Your task to perform on an android device: install app "YouTube Kids" Image 0: 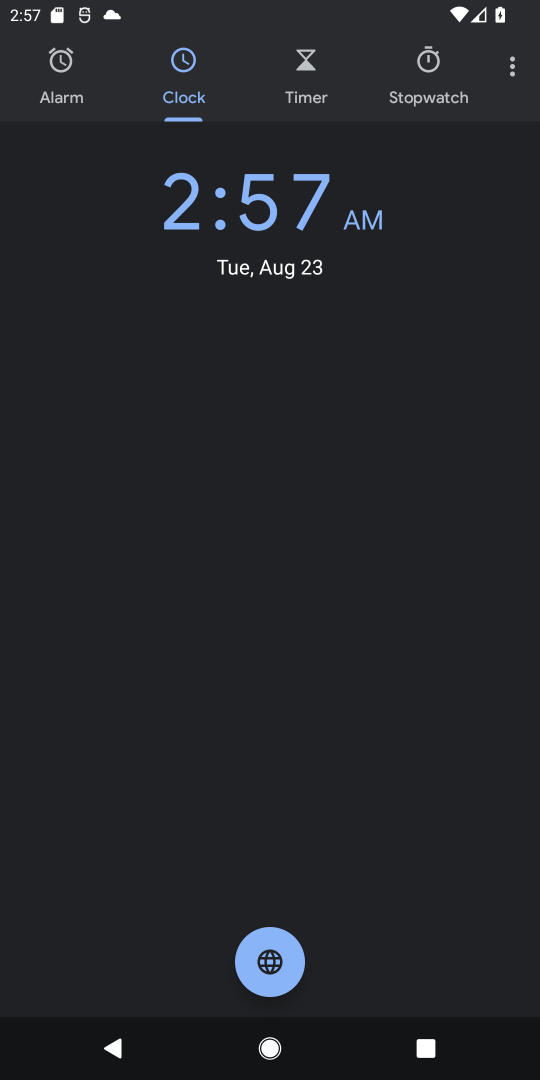
Step 0: press back button
Your task to perform on an android device: install app "YouTube Kids" Image 1: 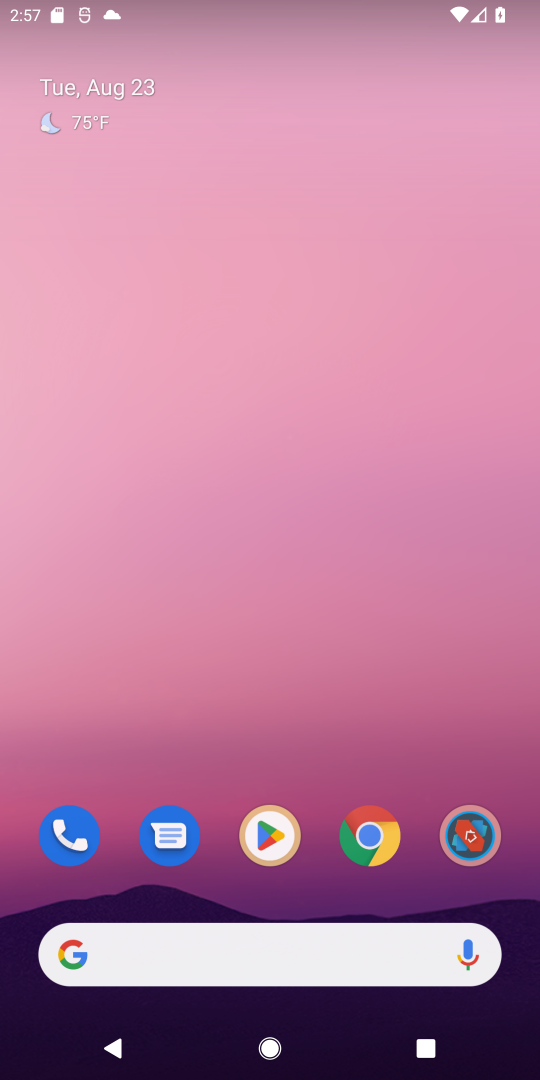
Step 1: press home button
Your task to perform on an android device: install app "YouTube Kids" Image 2: 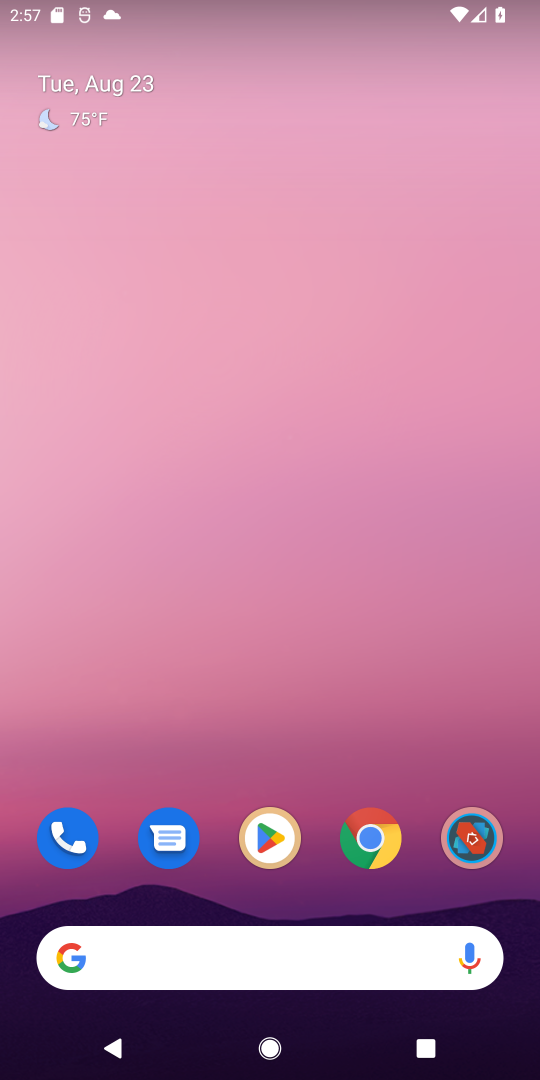
Step 2: click (257, 845)
Your task to perform on an android device: install app "YouTube Kids" Image 3: 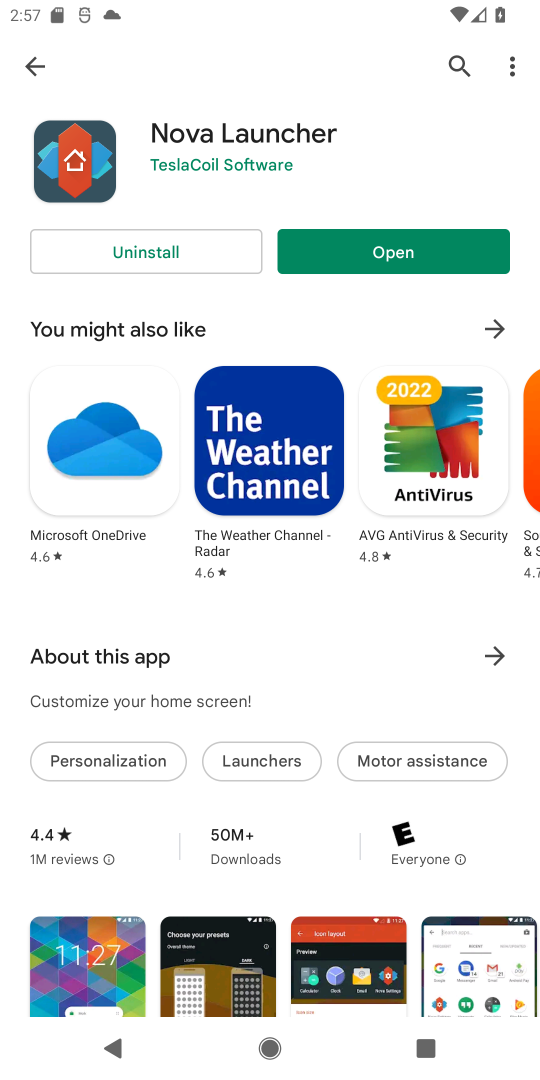
Step 3: click (28, 81)
Your task to perform on an android device: install app "YouTube Kids" Image 4: 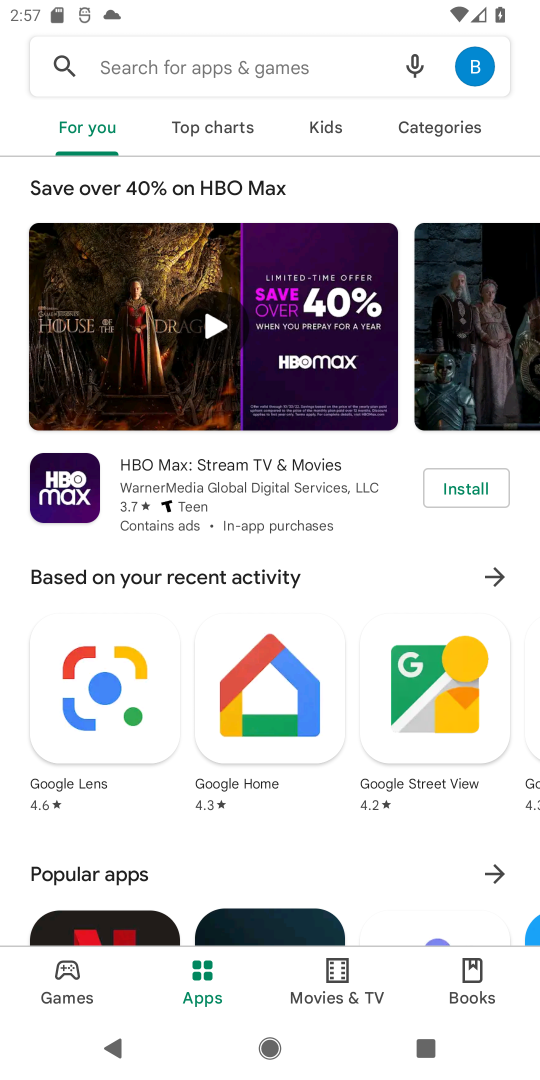
Step 4: click (138, 53)
Your task to perform on an android device: install app "YouTube Kids" Image 5: 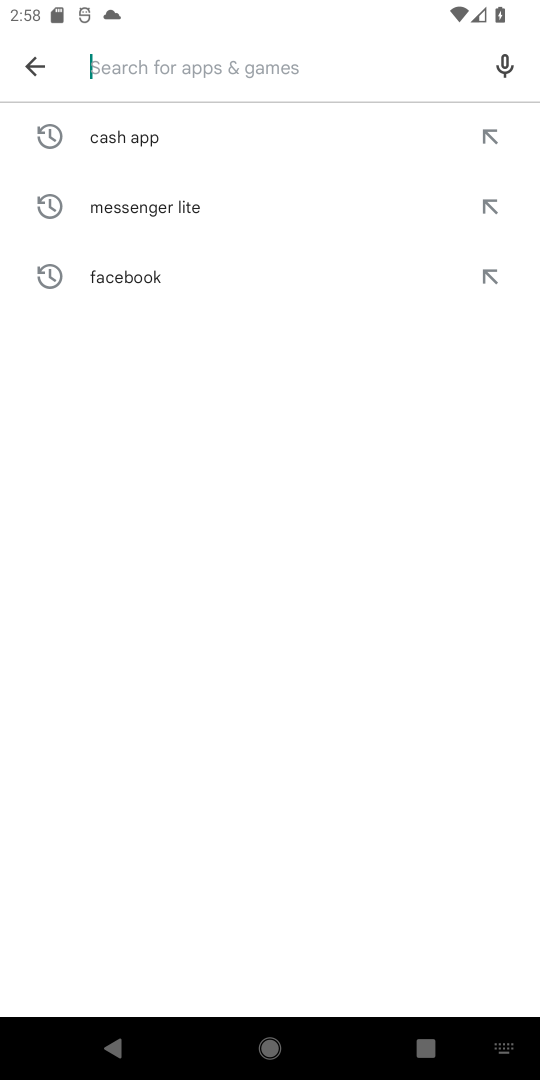
Step 5: type "YouTube Kids"
Your task to perform on an android device: install app "YouTube Kids" Image 6: 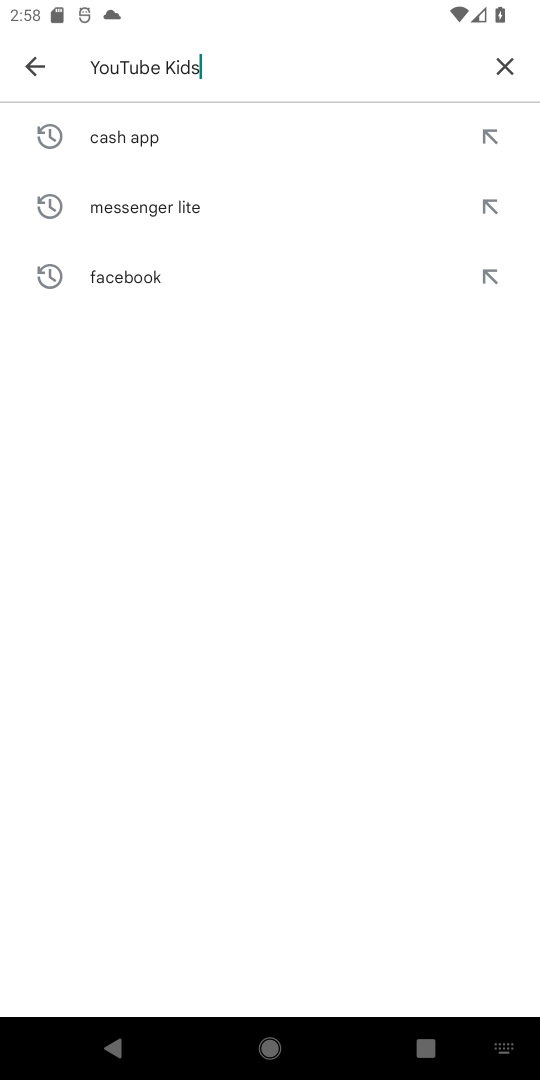
Step 6: type ""
Your task to perform on an android device: install app "YouTube Kids" Image 7: 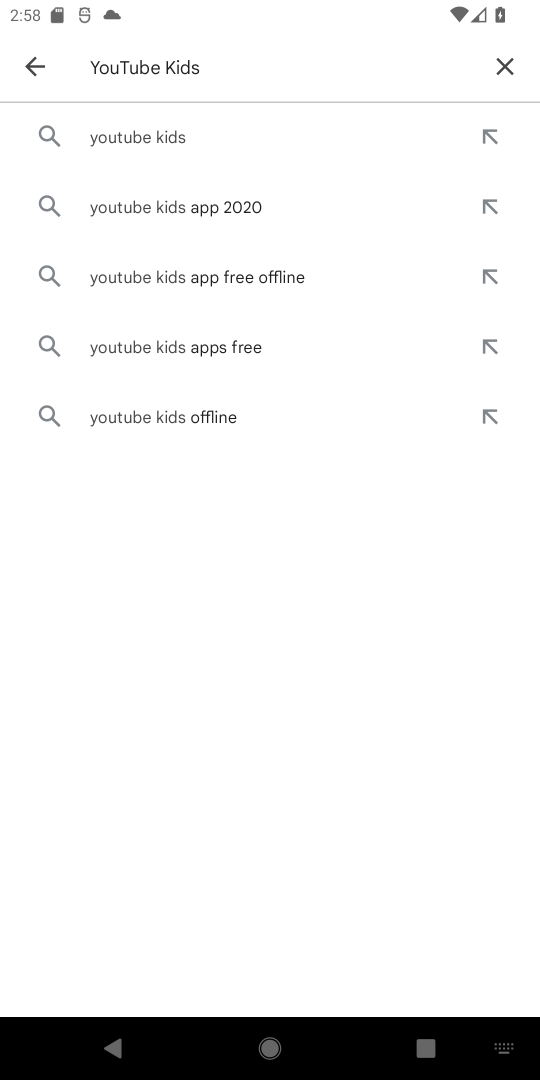
Step 7: click (135, 154)
Your task to perform on an android device: install app "YouTube Kids" Image 8: 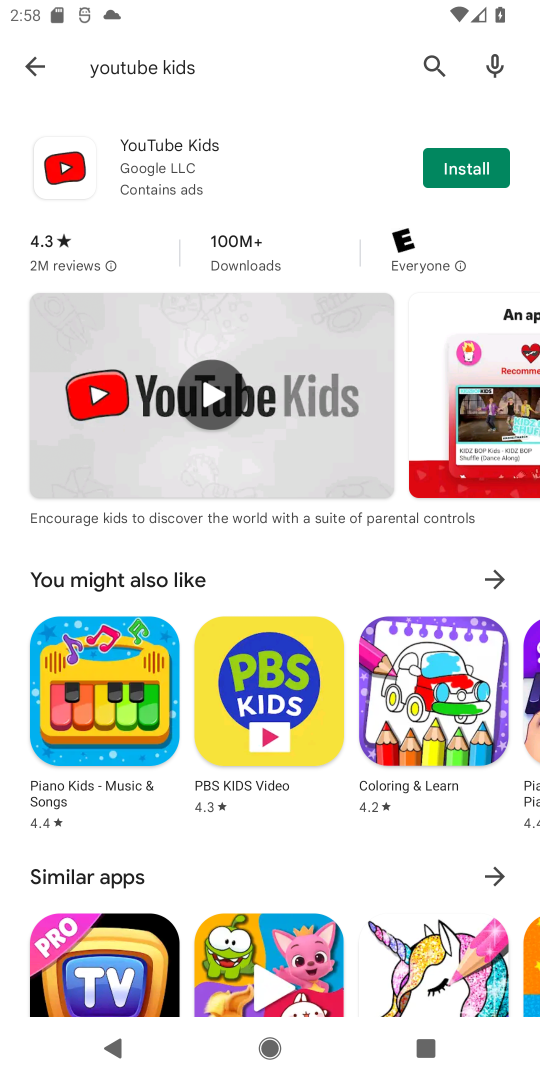
Step 8: click (427, 162)
Your task to perform on an android device: install app "YouTube Kids" Image 9: 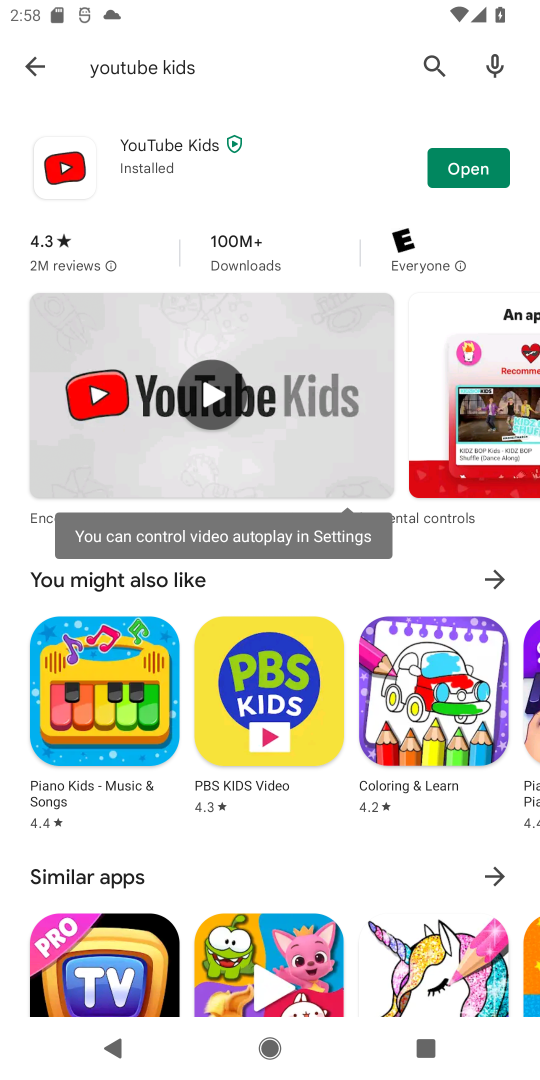
Step 9: click (470, 157)
Your task to perform on an android device: install app "YouTube Kids" Image 10: 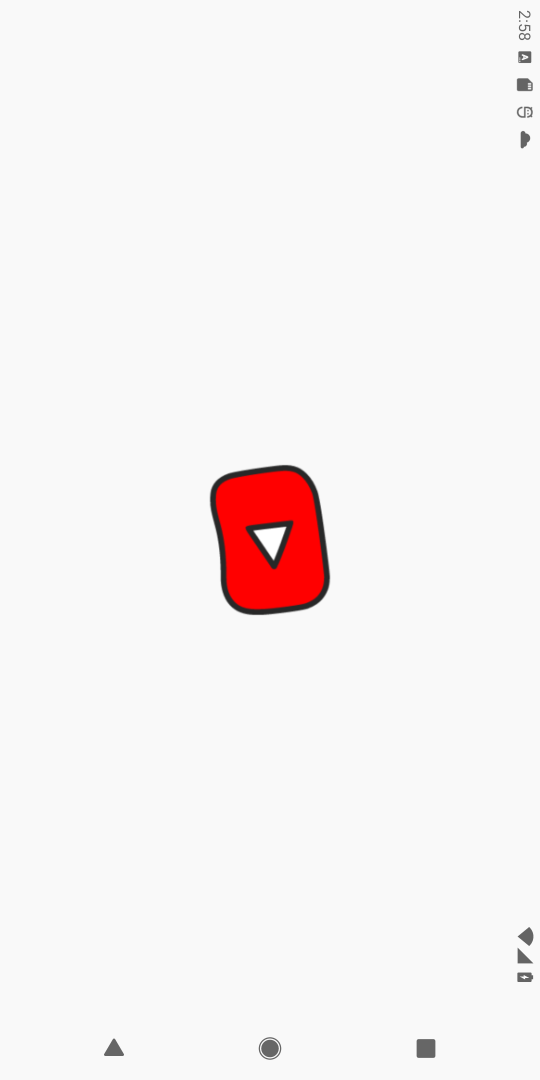
Step 10: task complete